Your task to perform on an android device: Go to eBay Image 0: 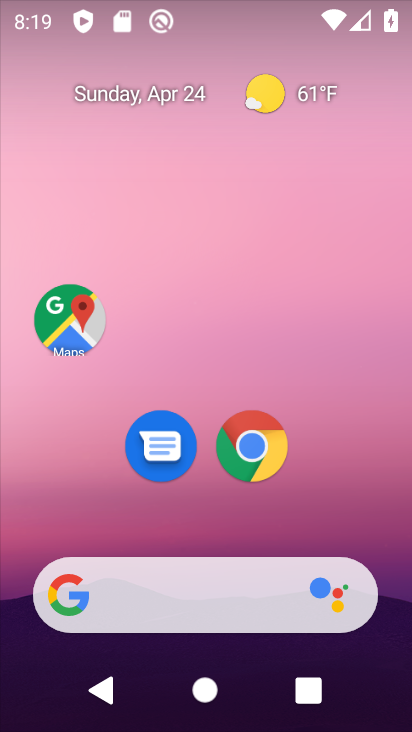
Step 0: drag from (231, 454) to (249, 33)
Your task to perform on an android device: Go to eBay Image 1: 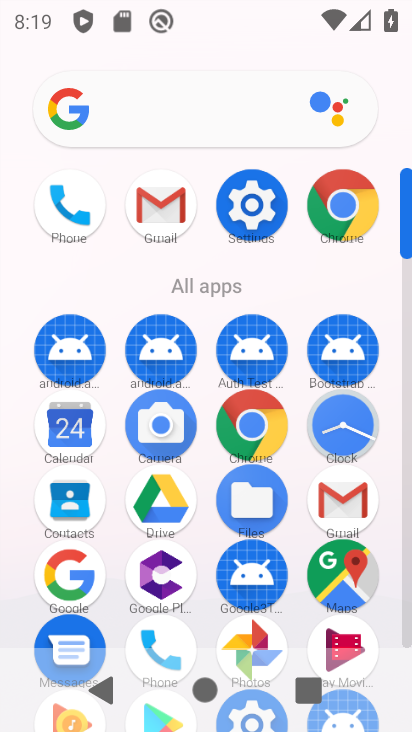
Step 1: click (222, 210)
Your task to perform on an android device: Go to eBay Image 2: 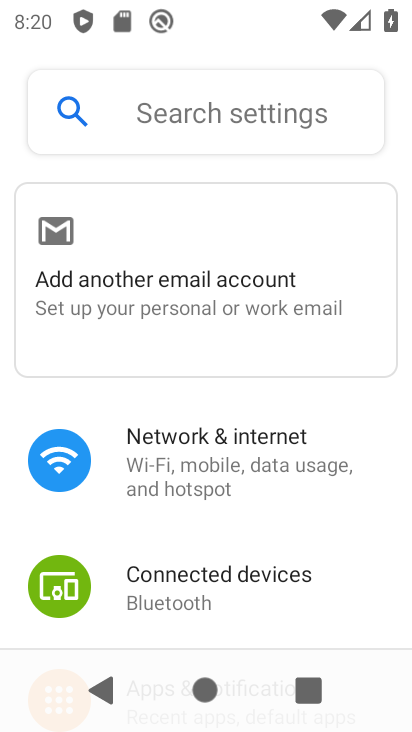
Step 2: press home button
Your task to perform on an android device: Go to eBay Image 3: 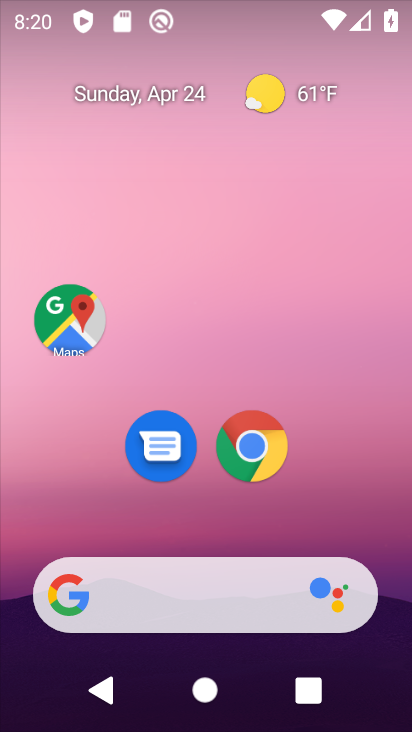
Step 3: click (271, 454)
Your task to perform on an android device: Go to eBay Image 4: 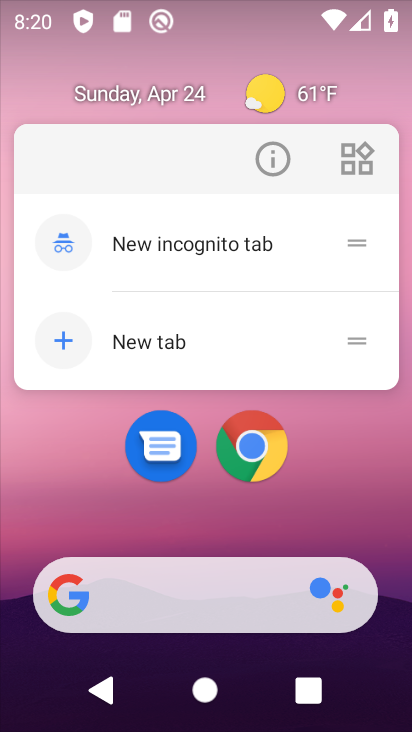
Step 4: click (270, 454)
Your task to perform on an android device: Go to eBay Image 5: 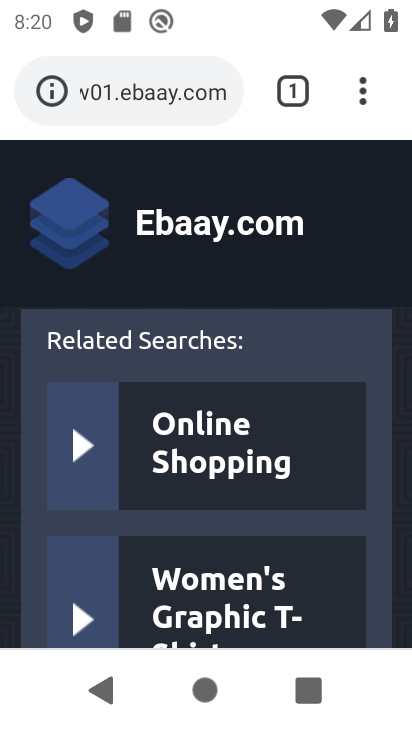
Step 5: click (213, 90)
Your task to perform on an android device: Go to eBay Image 6: 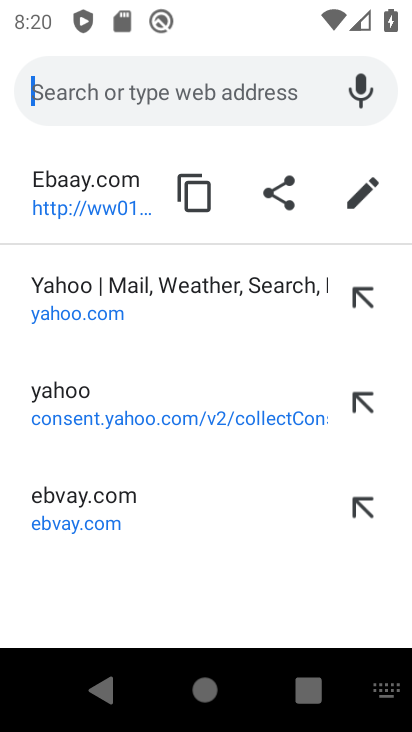
Step 6: click (140, 495)
Your task to perform on an android device: Go to eBay Image 7: 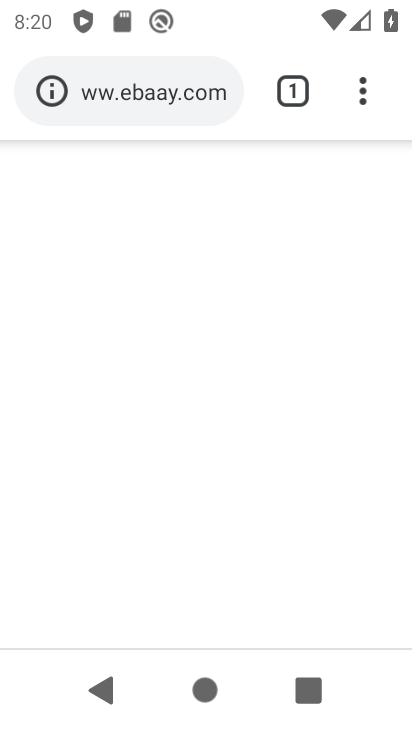
Step 7: task complete